Your task to perform on an android device: What's on my calendar today? Image 0: 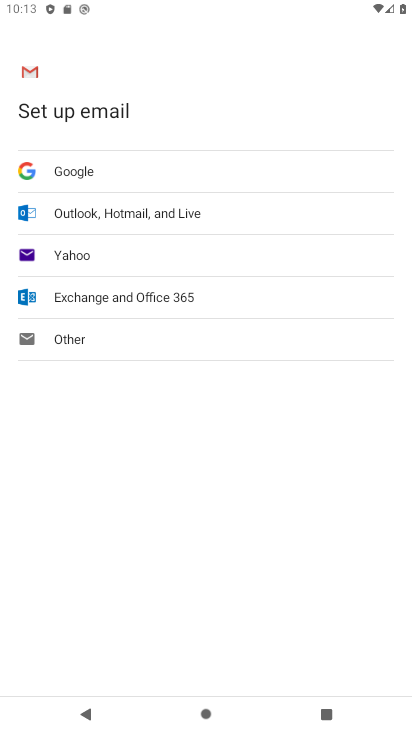
Step 0: press home button
Your task to perform on an android device: What's on my calendar today? Image 1: 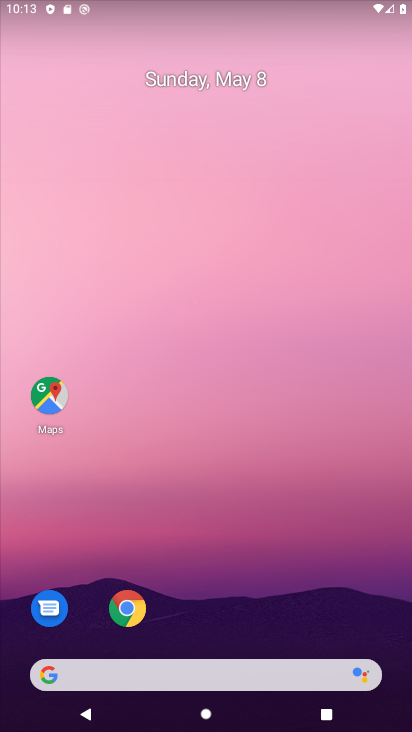
Step 1: drag from (225, 603) to (236, 256)
Your task to perform on an android device: What's on my calendar today? Image 2: 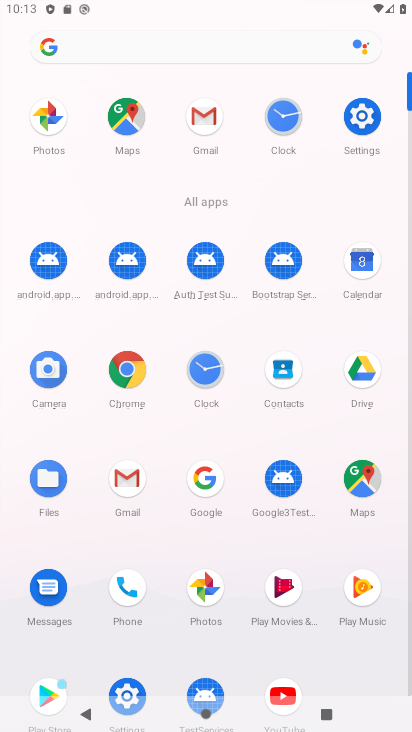
Step 2: click (362, 275)
Your task to perform on an android device: What's on my calendar today? Image 3: 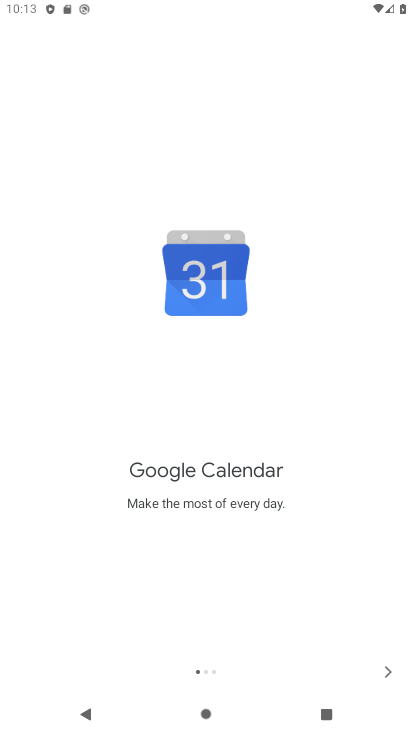
Step 3: click (377, 669)
Your task to perform on an android device: What's on my calendar today? Image 4: 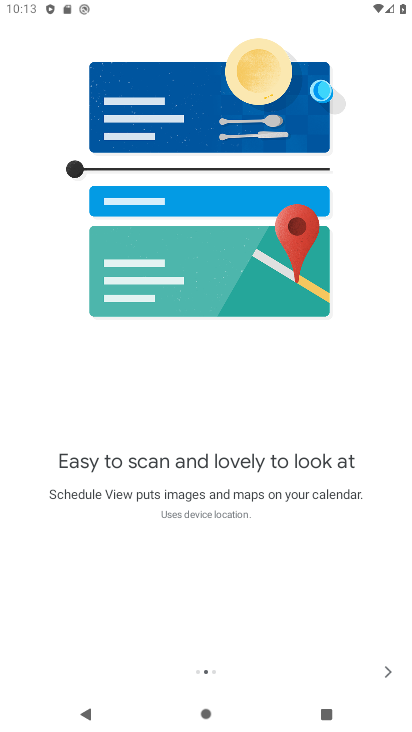
Step 4: click (382, 672)
Your task to perform on an android device: What's on my calendar today? Image 5: 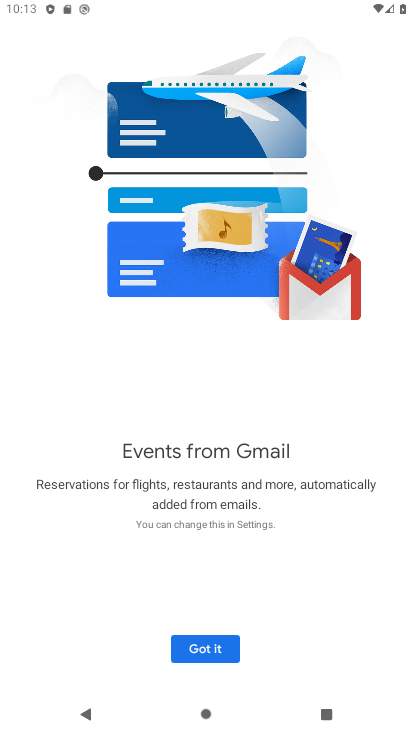
Step 5: click (213, 656)
Your task to perform on an android device: What's on my calendar today? Image 6: 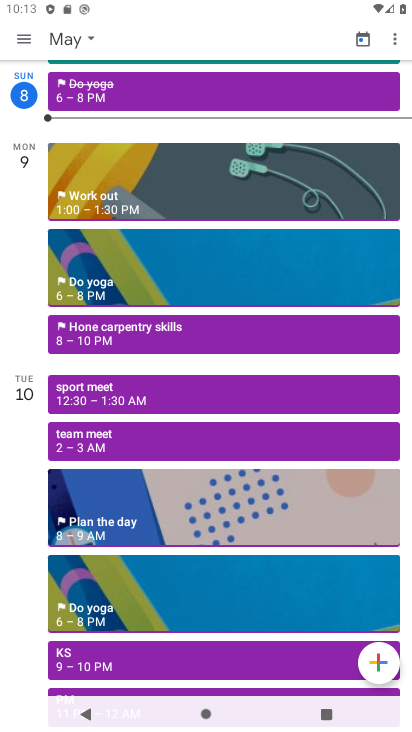
Step 6: click (89, 48)
Your task to perform on an android device: What's on my calendar today? Image 7: 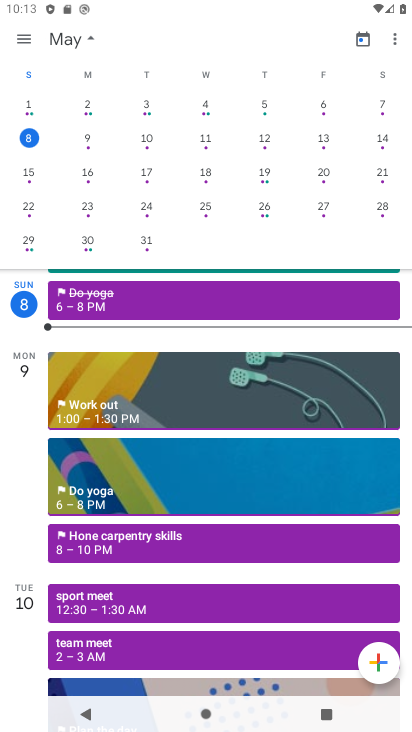
Step 7: task complete